Your task to perform on an android device: delete location history Image 0: 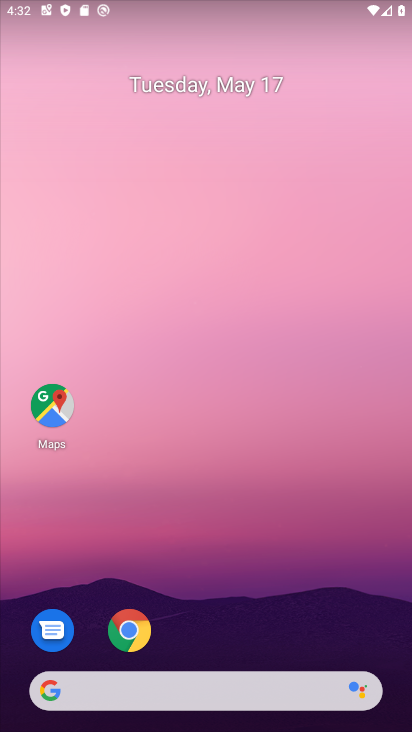
Step 0: drag from (219, 617) to (219, 60)
Your task to perform on an android device: delete location history Image 1: 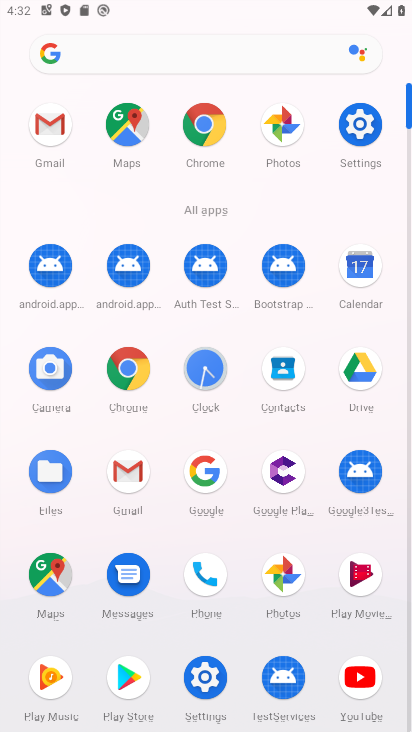
Step 1: click (46, 587)
Your task to perform on an android device: delete location history Image 2: 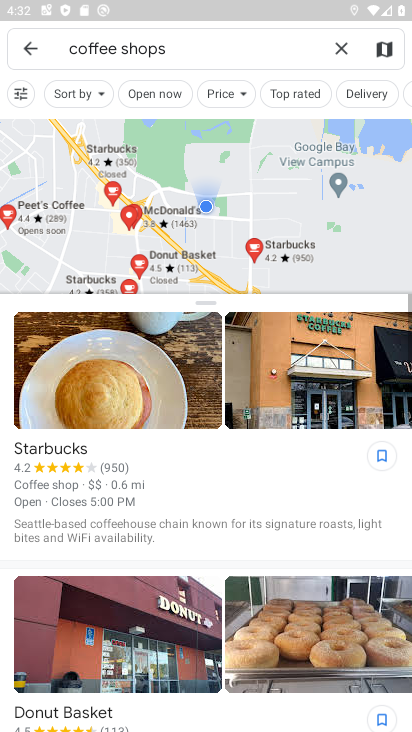
Step 2: click (21, 49)
Your task to perform on an android device: delete location history Image 3: 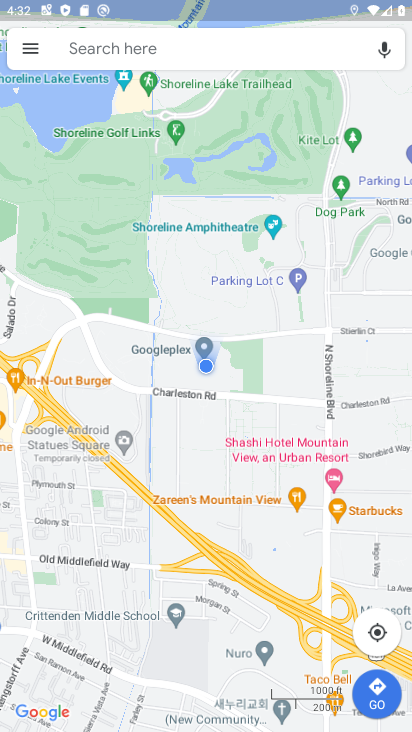
Step 3: click (33, 49)
Your task to perform on an android device: delete location history Image 4: 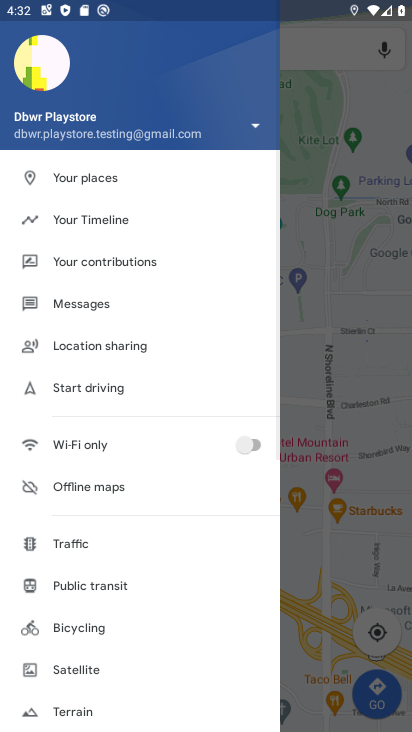
Step 4: click (96, 218)
Your task to perform on an android device: delete location history Image 5: 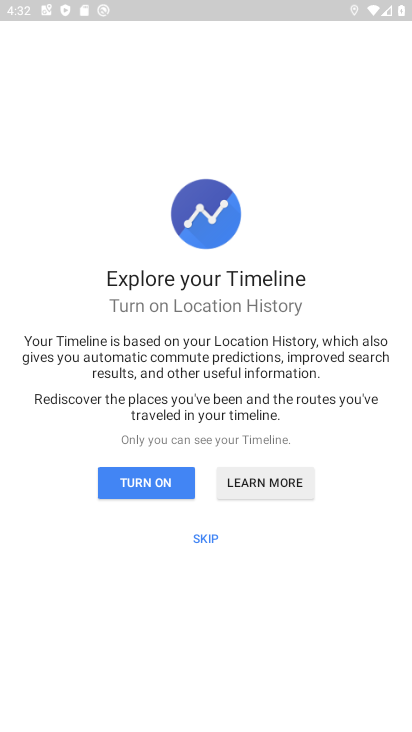
Step 5: click (148, 471)
Your task to perform on an android device: delete location history Image 6: 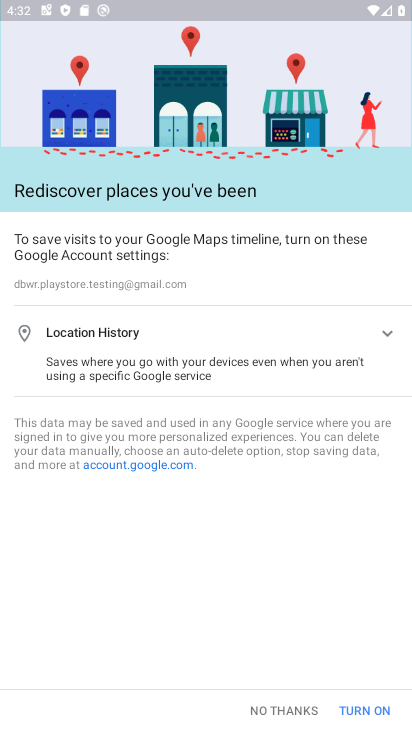
Step 6: click (287, 709)
Your task to perform on an android device: delete location history Image 7: 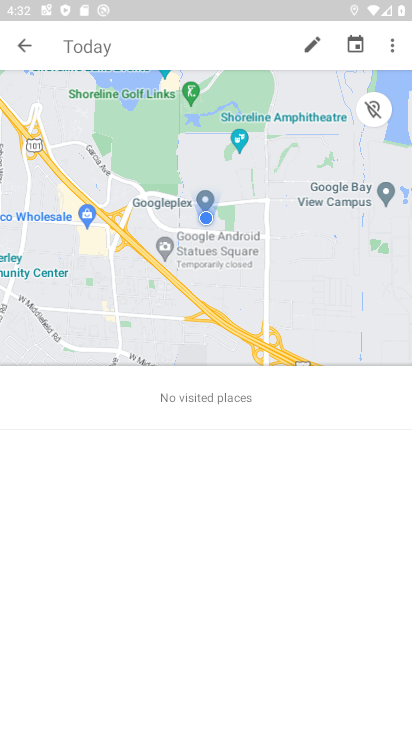
Step 7: click (395, 46)
Your task to perform on an android device: delete location history Image 8: 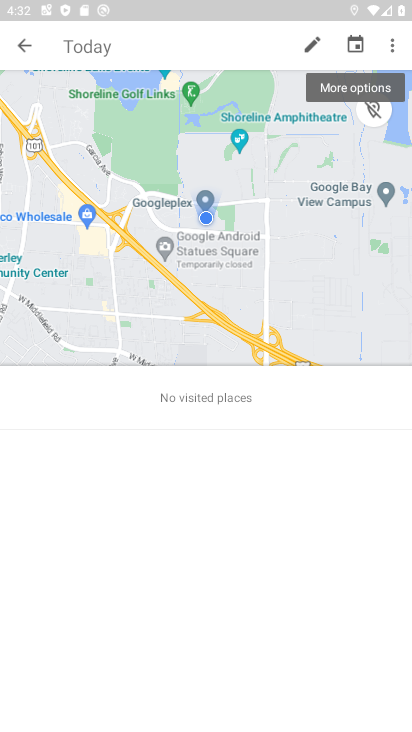
Step 8: click (395, 46)
Your task to perform on an android device: delete location history Image 9: 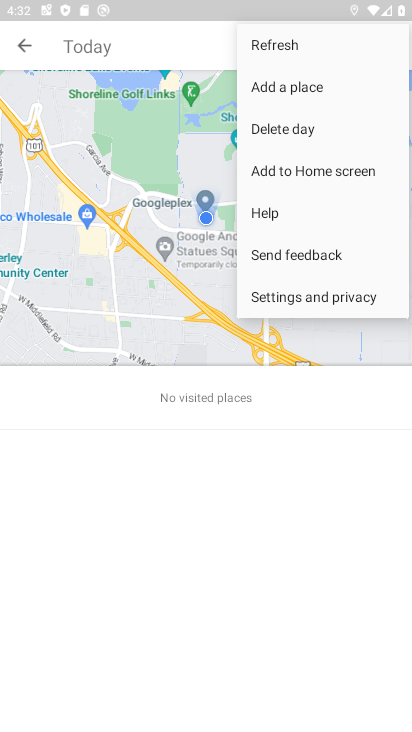
Step 9: click (285, 299)
Your task to perform on an android device: delete location history Image 10: 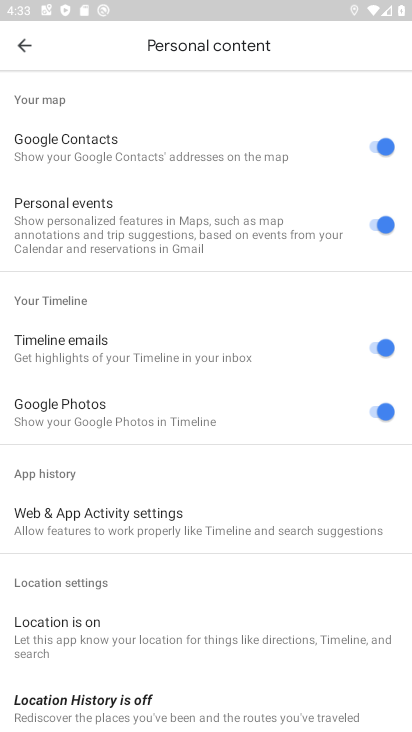
Step 10: drag from (160, 627) to (191, 170)
Your task to perform on an android device: delete location history Image 11: 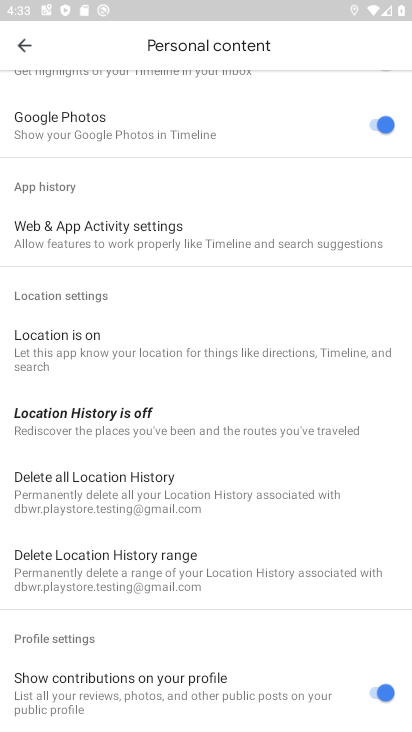
Step 11: click (124, 479)
Your task to perform on an android device: delete location history Image 12: 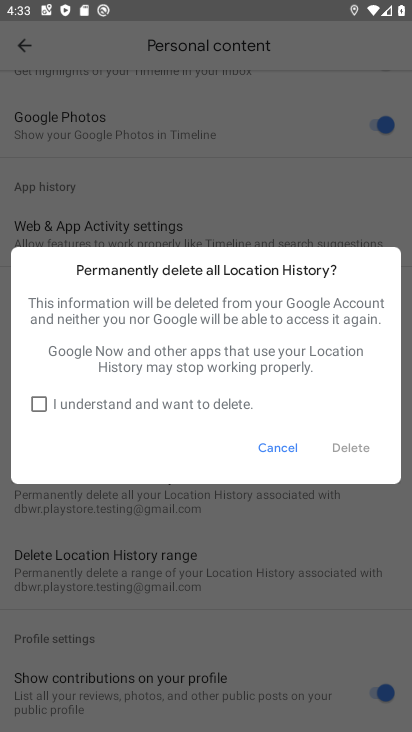
Step 12: click (46, 400)
Your task to perform on an android device: delete location history Image 13: 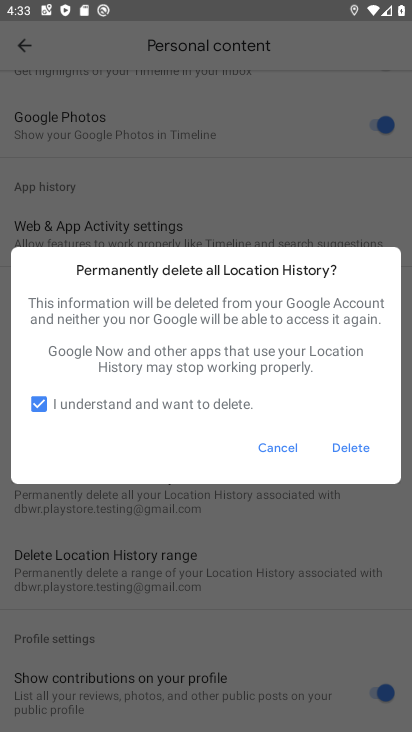
Step 13: click (346, 442)
Your task to perform on an android device: delete location history Image 14: 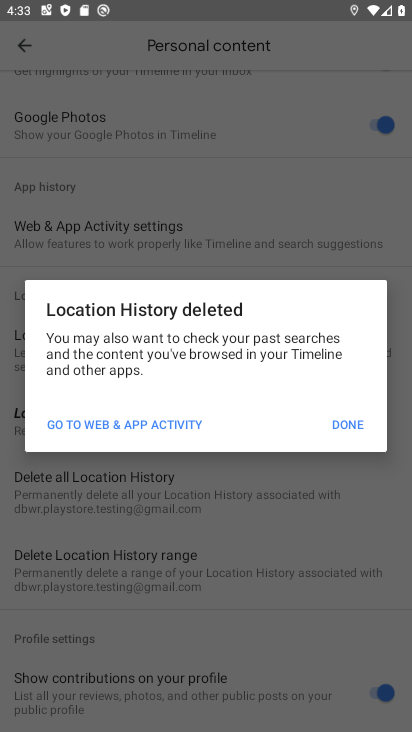
Step 14: click (342, 419)
Your task to perform on an android device: delete location history Image 15: 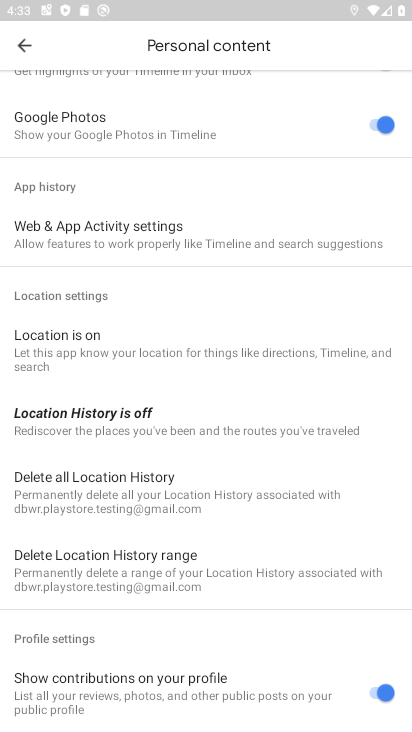
Step 15: task complete